Your task to perform on an android device: Go to Reddit.com Image 0: 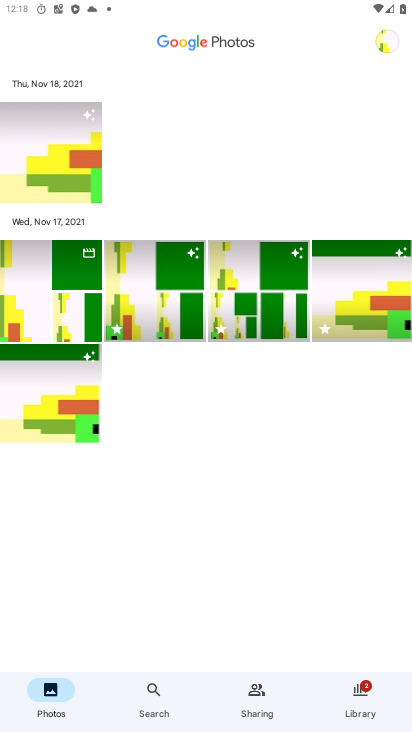
Step 0: press home button
Your task to perform on an android device: Go to Reddit.com Image 1: 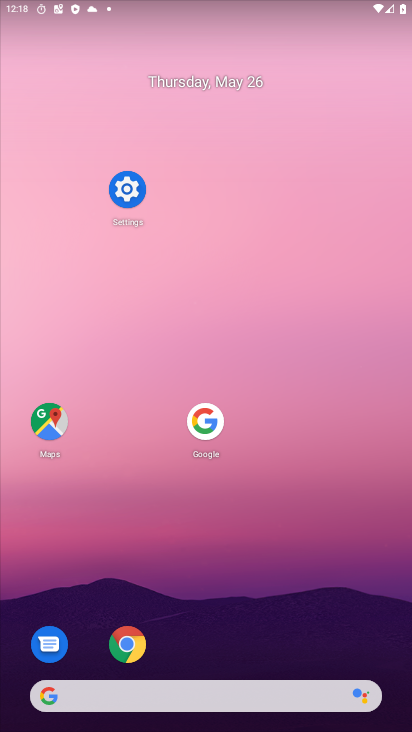
Step 1: click (212, 417)
Your task to perform on an android device: Go to Reddit.com Image 2: 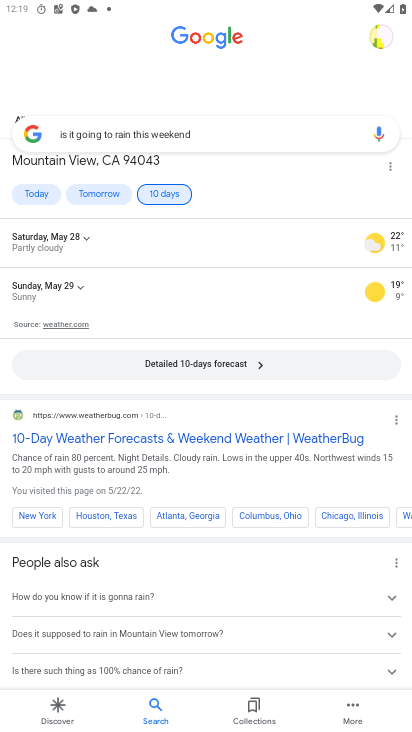
Step 2: click (211, 123)
Your task to perform on an android device: Go to Reddit.com Image 3: 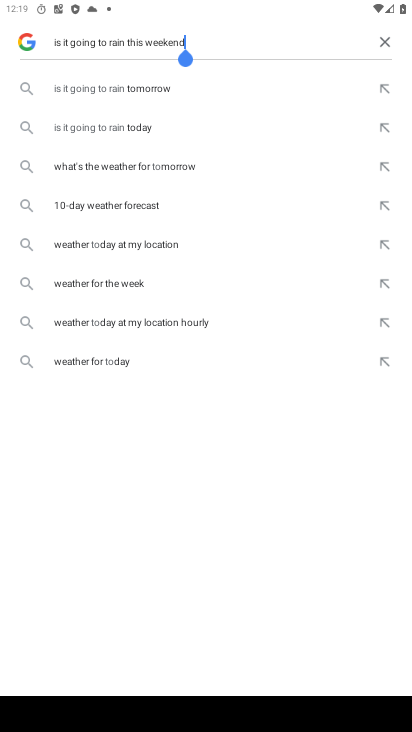
Step 3: click (378, 39)
Your task to perform on an android device: Go to Reddit.com Image 4: 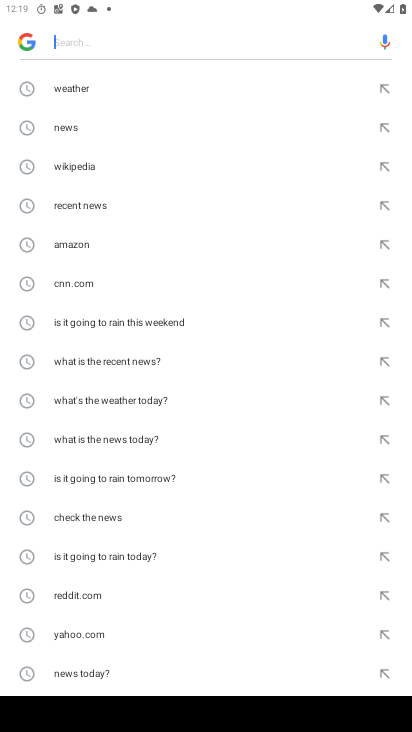
Step 4: click (84, 591)
Your task to perform on an android device: Go to Reddit.com Image 5: 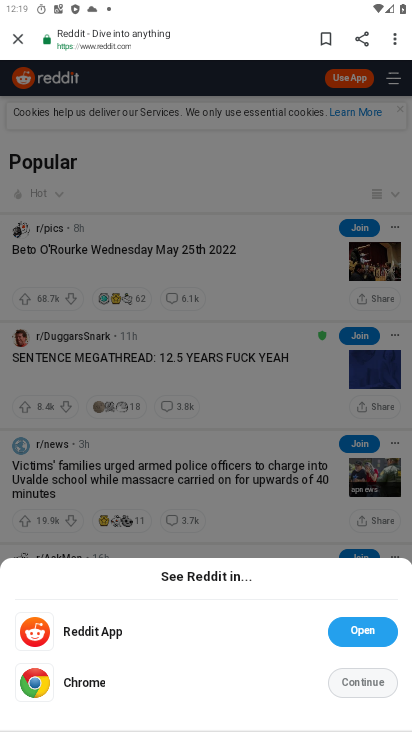
Step 5: task complete